Your task to perform on an android device: turn on airplane mode Image 0: 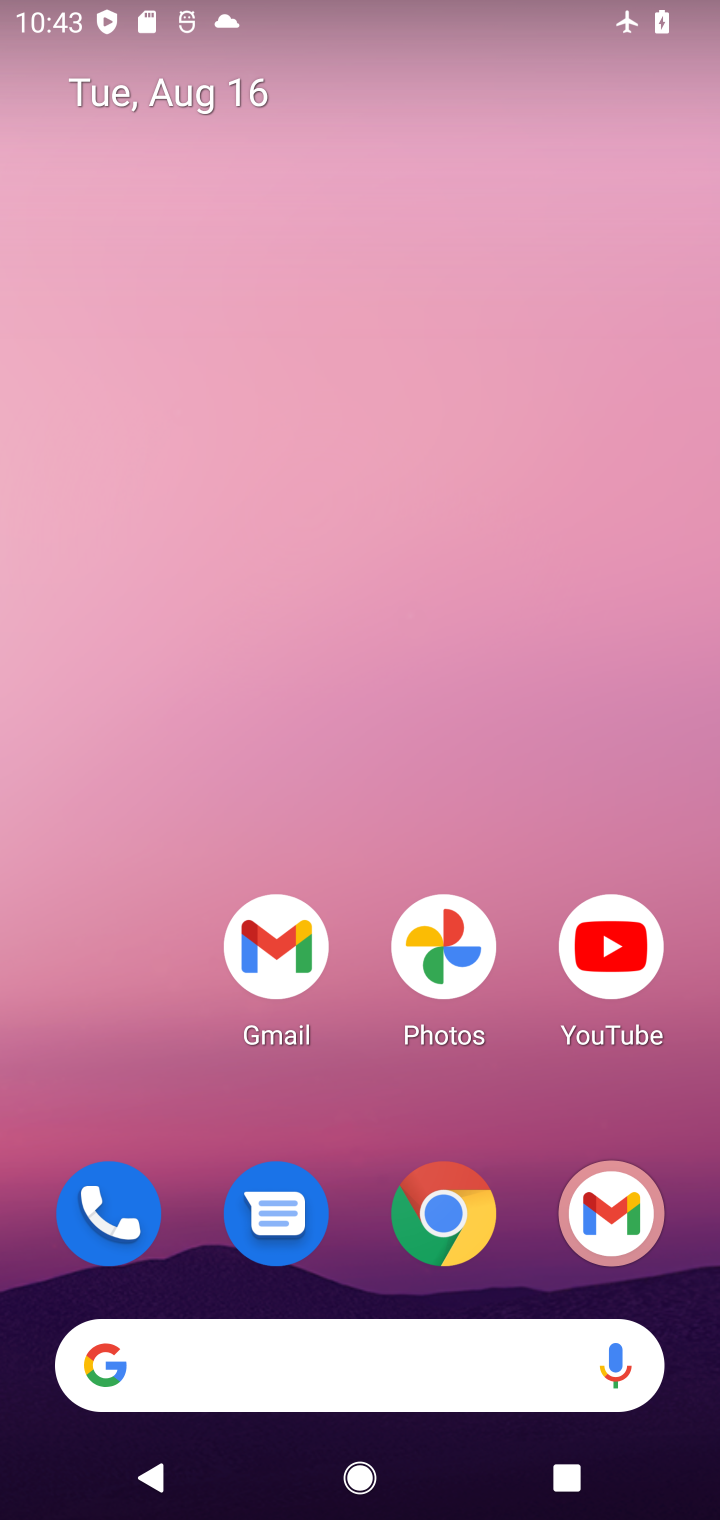
Step 0: drag from (323, 1232) to (344, 473)
Your task to perform on an android device: turn on airplane mode Image 1: 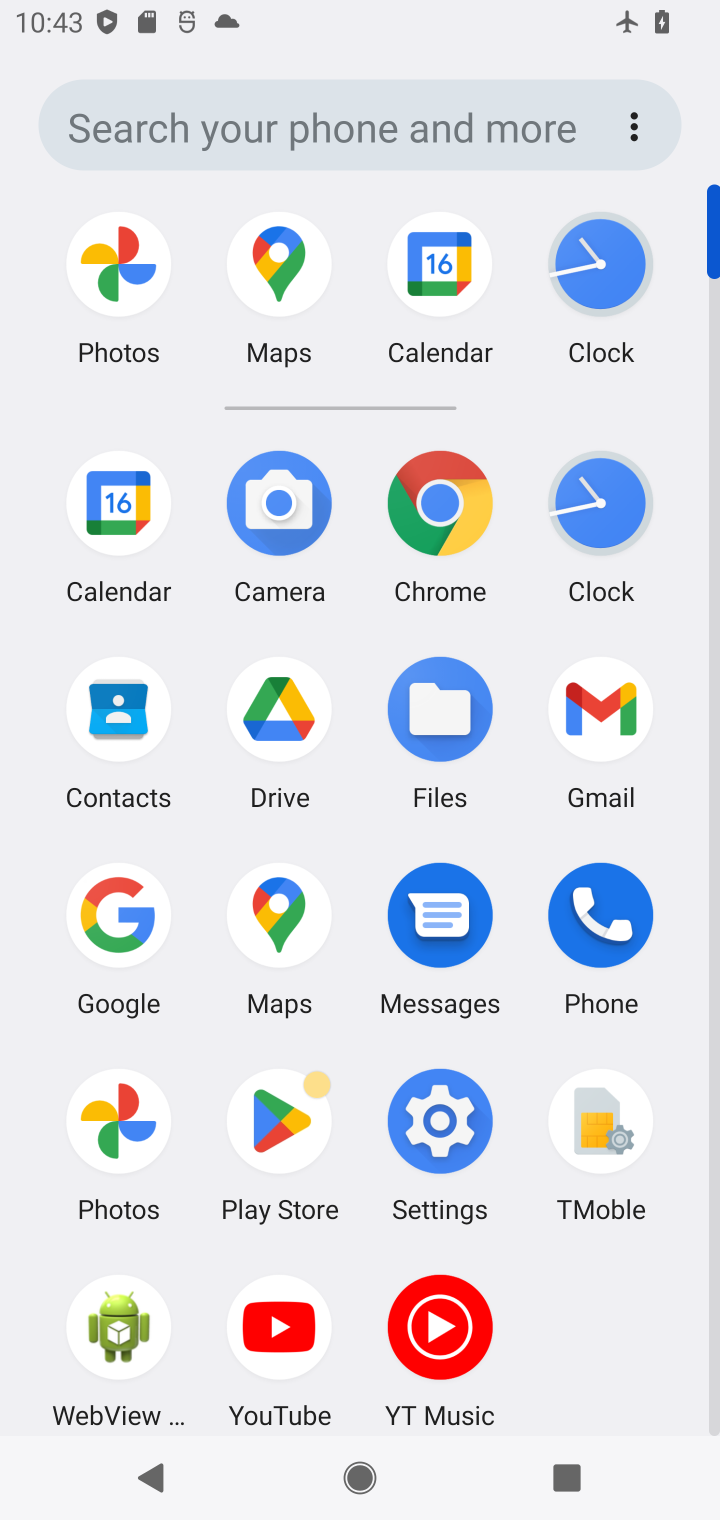
Step 1: click (438, 1119)
Your task to perform on an android device: turn on airplane mode Image 2: 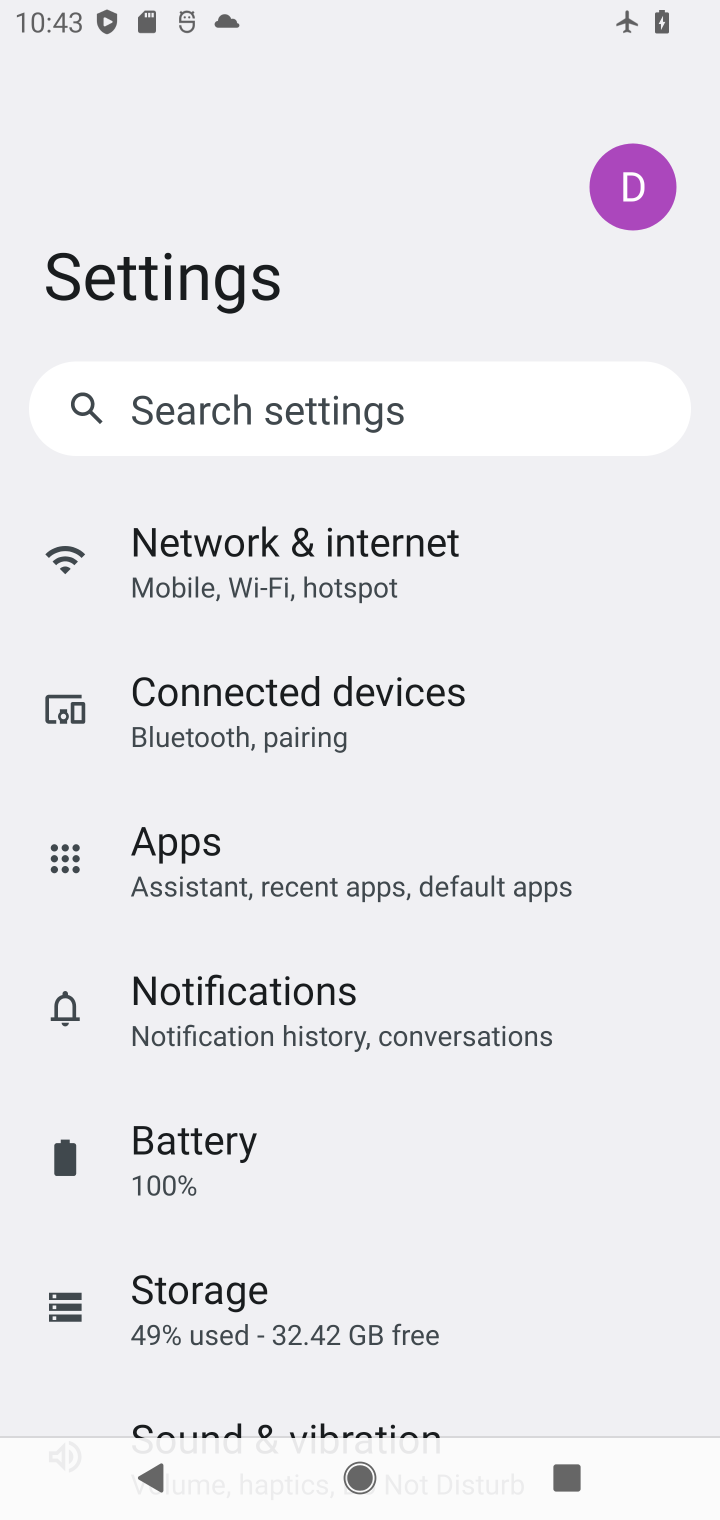
Step 2: click (438, 1119)
Your task to perform on an android device: turn on airplane mode Image 3: 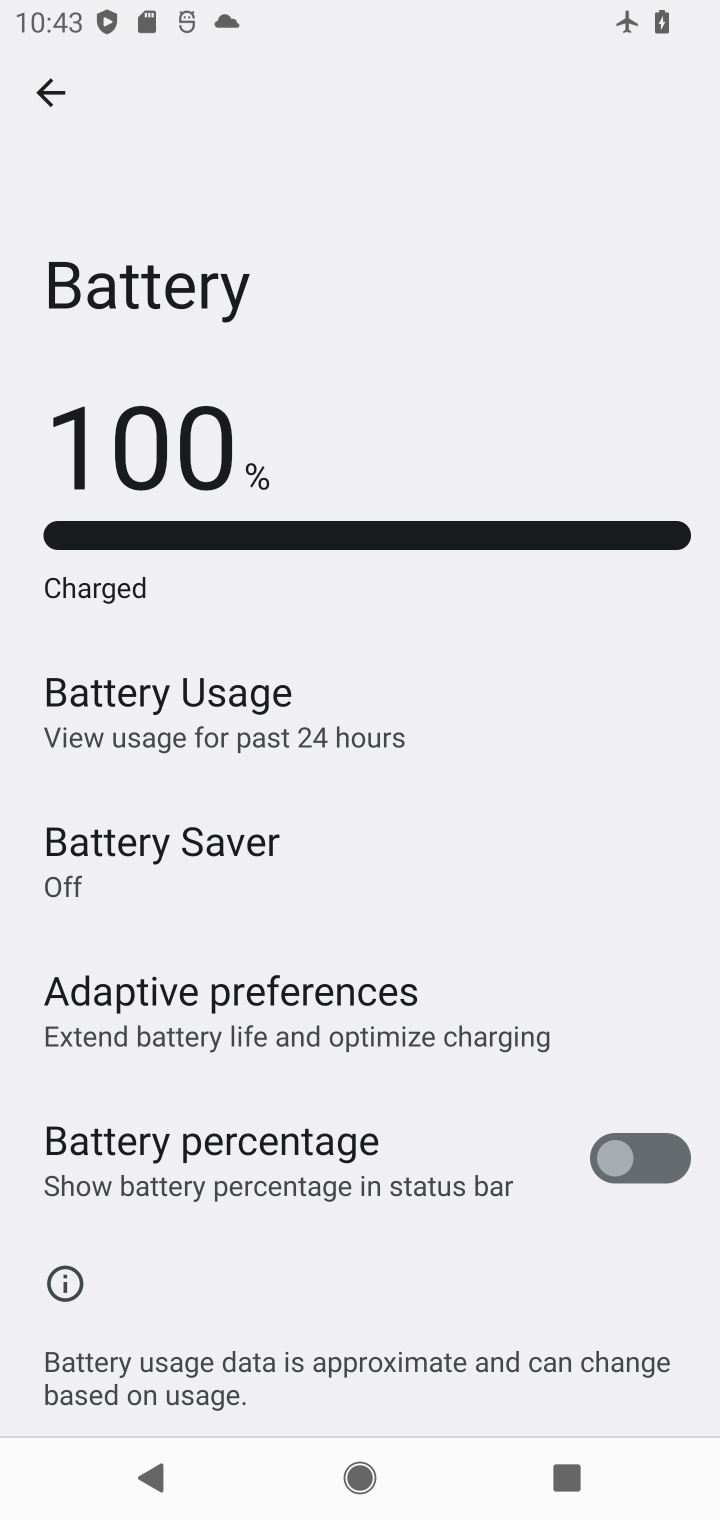
Step 3: click (44, 103)
Your task to perform on an android device: turn on airplane mode Image 4: 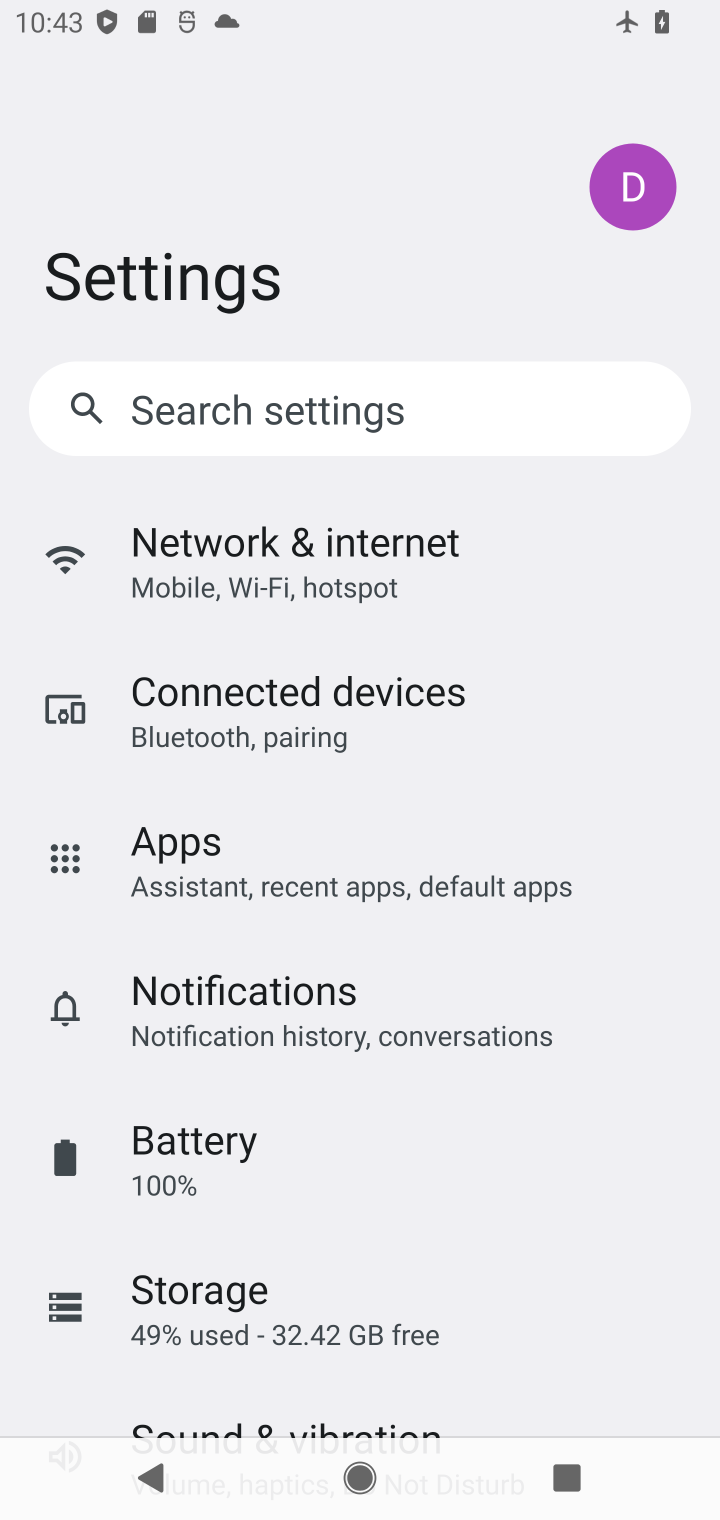
Step 4: click (322, 537)
Your task to perform on an android device: turn on airplane mode Image 5: 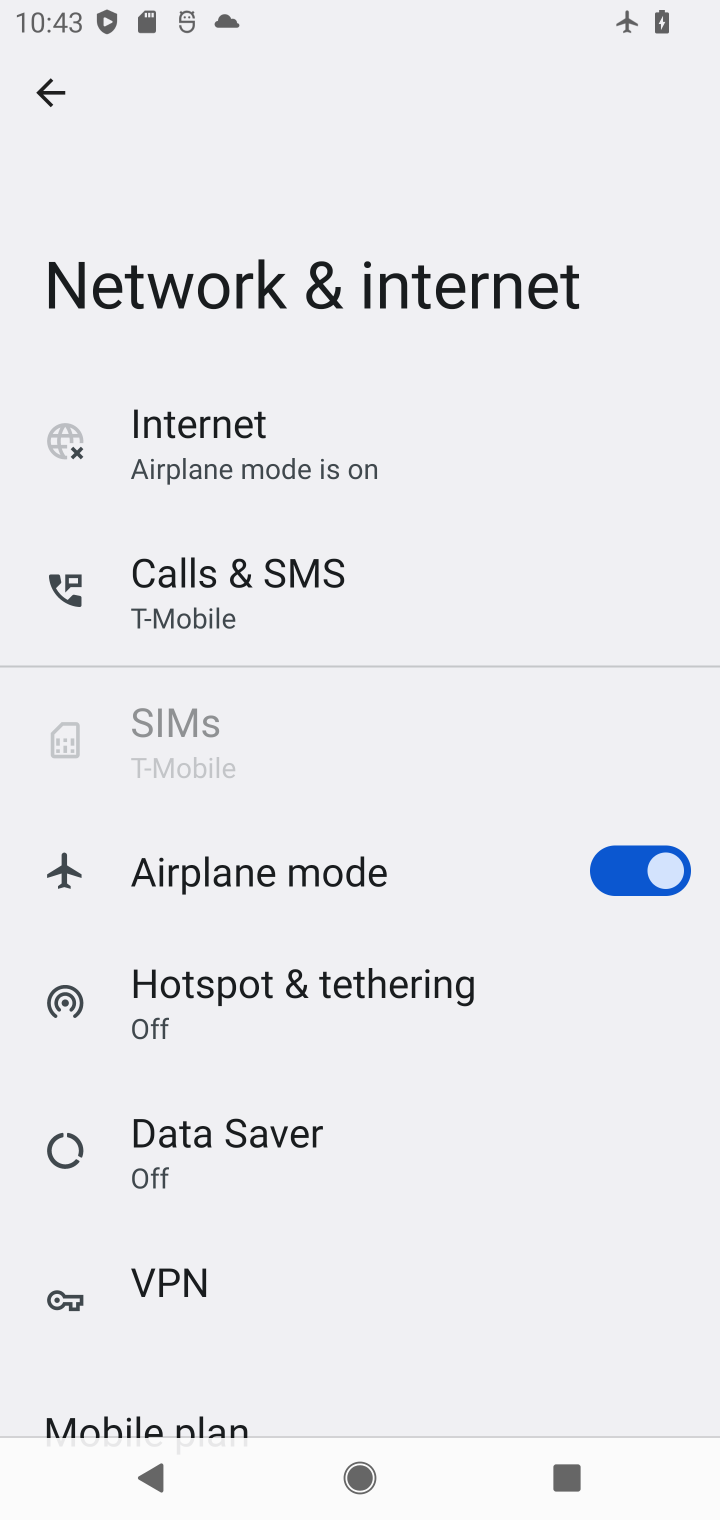
Step 5: task complete